Your task to perform on an android device: Open Youtube and go to the subscriptions tab Image 0: 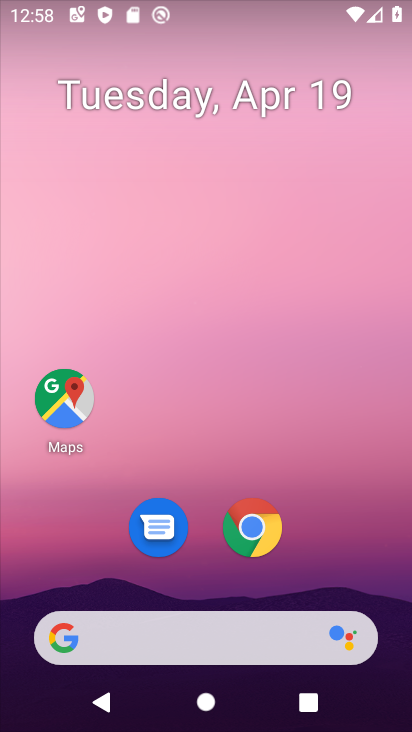
Step 0: drag from (323, 521) to (333, 81)
Your task to perform on an android device: Open Youtube and go to the subscriptions tab Image 1: 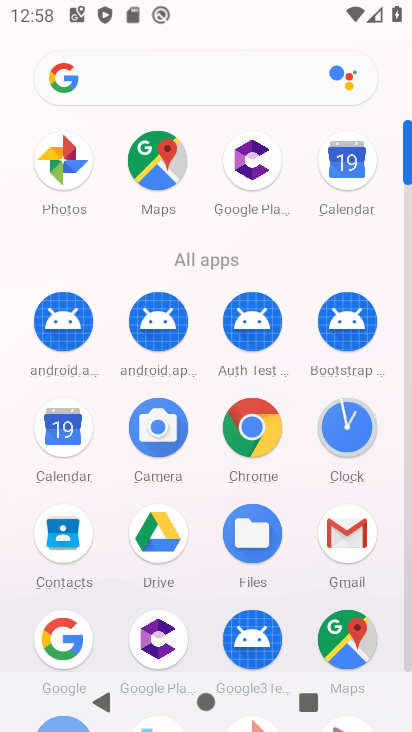
Step 1: drag from (300, 263) to (318, 43)
Your task to perform on an android device: Open Youtube and go to the subscriptions tab Image 2: 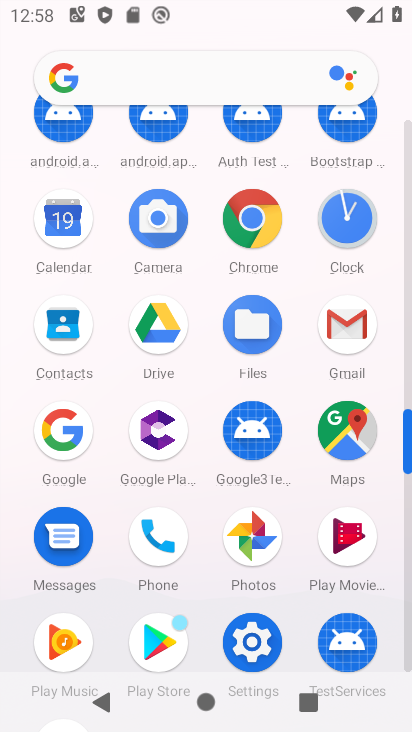
Step 2: drag from (304, 291) to (314, 19)
Your task to perform on an android device: Open Youtube and go to the subscriptions tab Image 3: 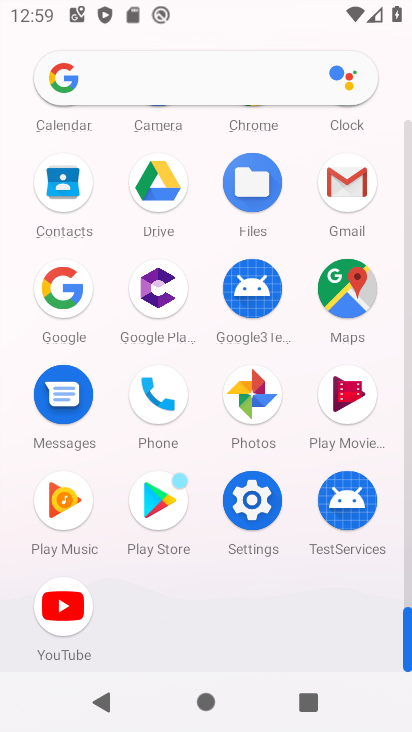
Step 3: click (67, 610)
Your task to perform on an android device: Open Youtube and go to the subscriptions tab Image 4: 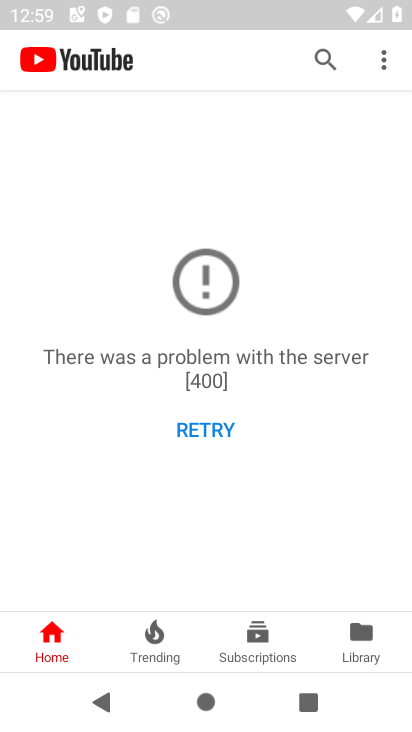
Step 4: click (255, 637)
Your task to perform on an android device: Open Youtube and go to the subscriptions tab Image 5: 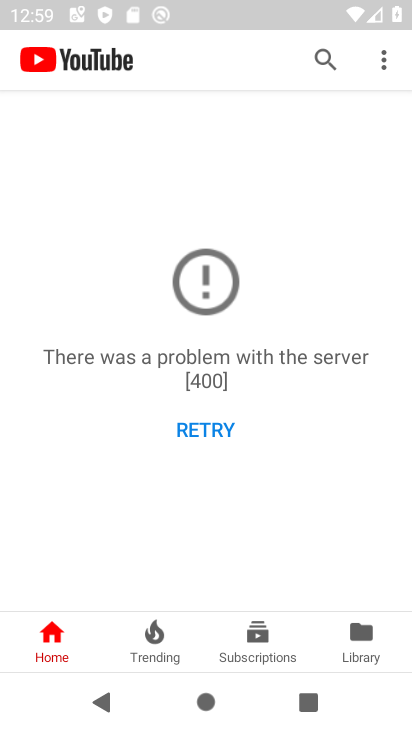
Step 5: click (258, 631)
Your task to perform on an android device: Open Youtube and go to the subscriptions tab Image 6: 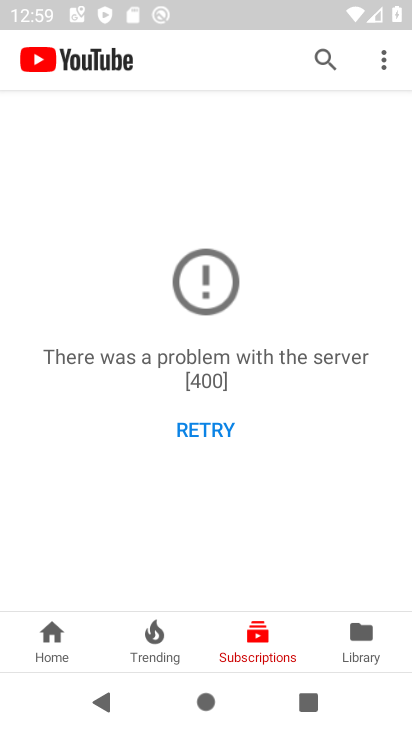
Step 6: task complete